Your task to perform on an android device: move a message to another label in the gmail app Image 0: 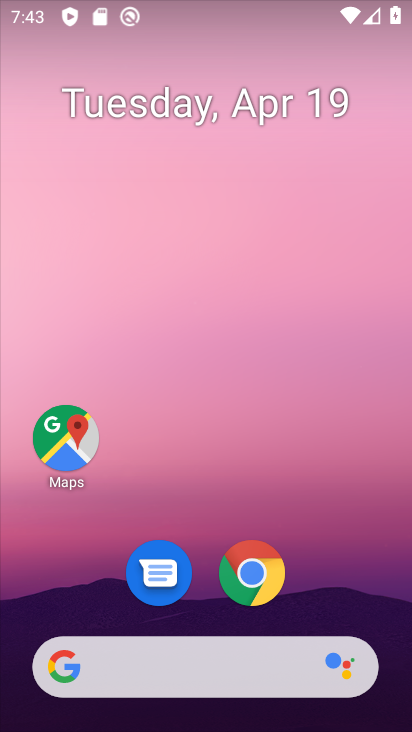
Step 0: click (257, 571)
Your task to perform on an android device: move a message to another label in the gmail app Image 1: 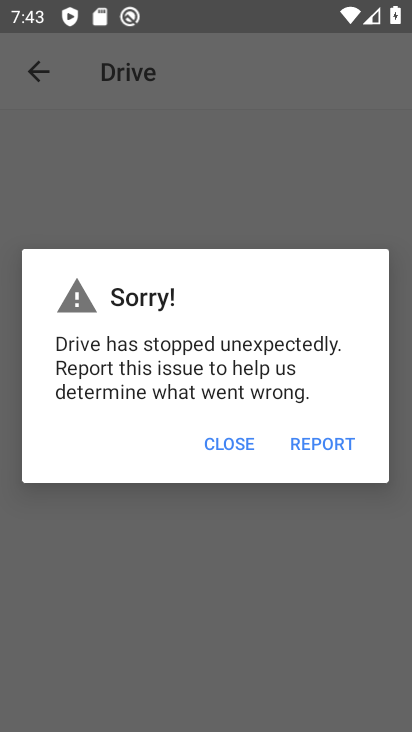
Step 1: press home button
Your task to perform on an android device: move a message to another label in the gmail app Image 2: 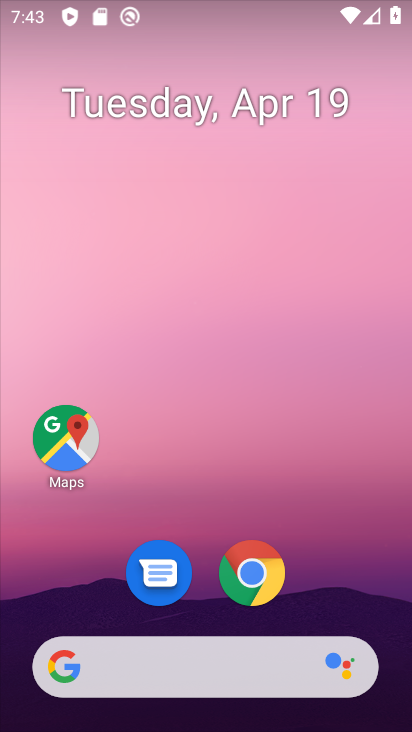
Step 2: drag from (329, 592) to (319, 47)
Your task to perform on an android device: move a message to another label in the gmail app Image 3: 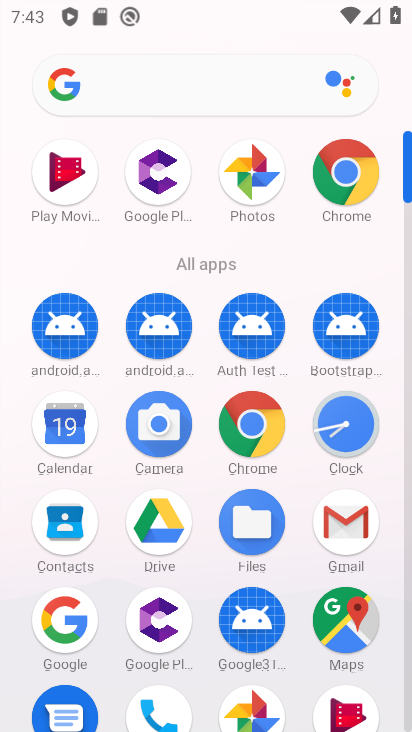
Step 3: click (356, 526)
Your task to perform on an android device: move a message to another label in the gmail app Image 4: 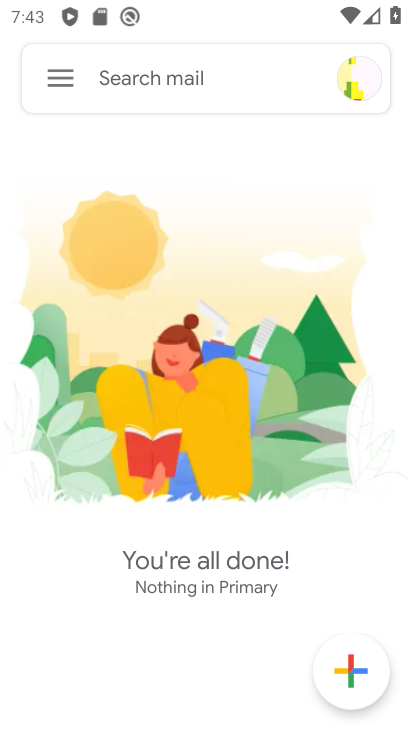
Step 4: click (58, 80)
Your task to perform on an android device: move a message to another label in the gmail app Image 5: 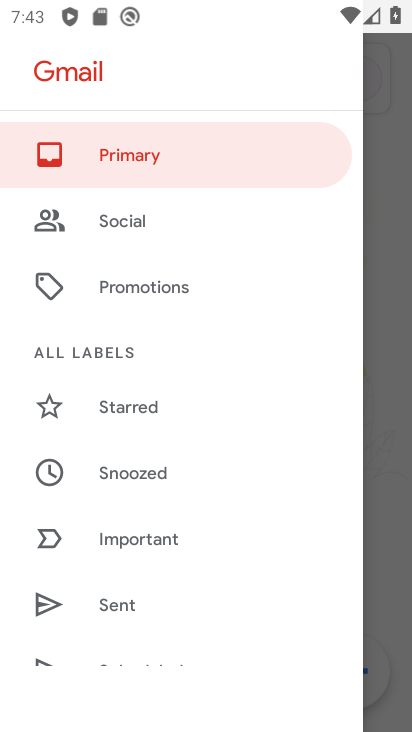
Step 5: drag from (187, 535) to (189, 181)
Your task to perform on an android device: move a message to another label in the gmail app Image 6: 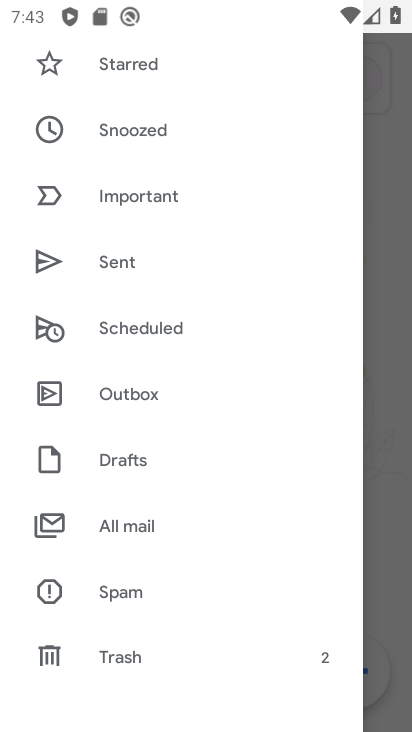
Step 6: click (132, 529)
Your task to perform on an android device: move a message to another label in the gmail app Image 7: 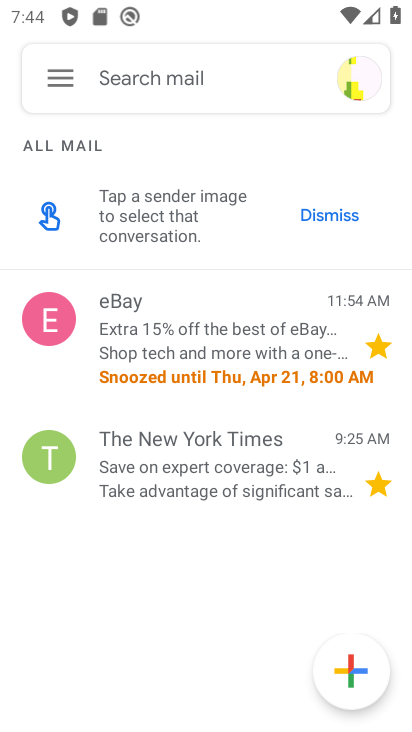
Step 7: click (268, 340)
Your task to perform on an android device: move a message to another label in the gmail app Image 8: 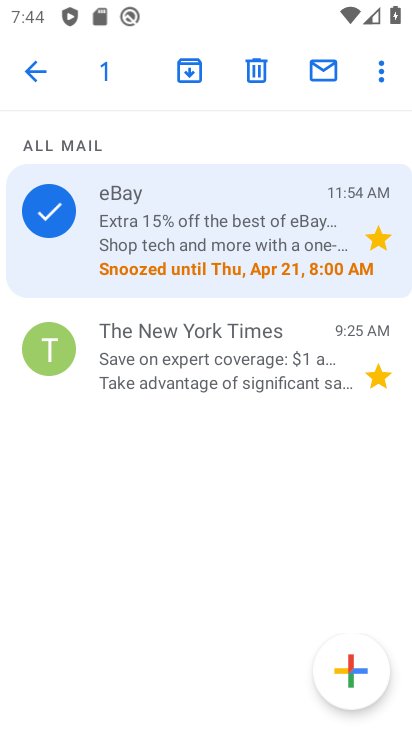
Step 8: click (376, 63)
Your task to perform on an android device: move a message to another label in the gmail app Image 9: 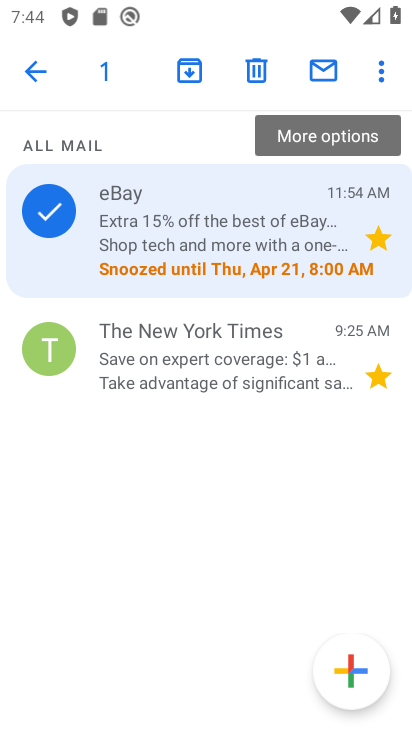
Step 9: click (333, 124)
Your task to perform on an android device: move a message to another label in the gmail app Image 10: 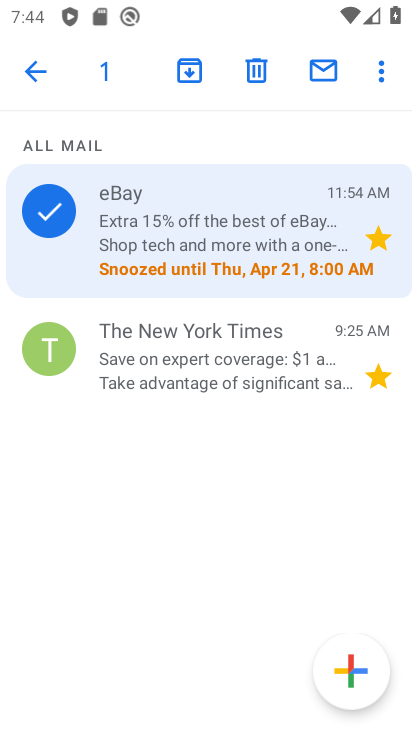
Step 10: click (384, 72)
Your task to perform on an android device: move a message to another label in the gmail app Image 11: 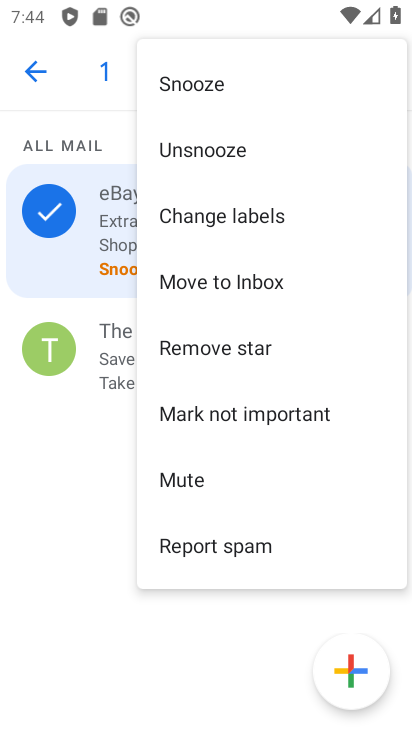
Step 11: click (251, 223)
Your task to perform on an android device: move a message to another label in the gmail app Image 12: 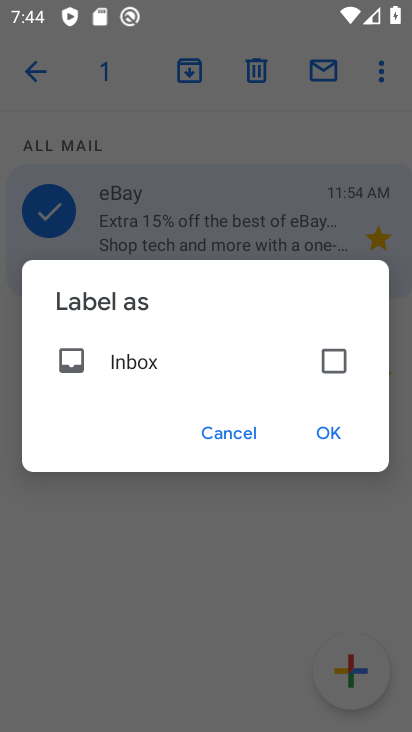
Step 12: click (326, 354)
Your task to perform on an android device: move a message to another label in the gmail app Image 13: 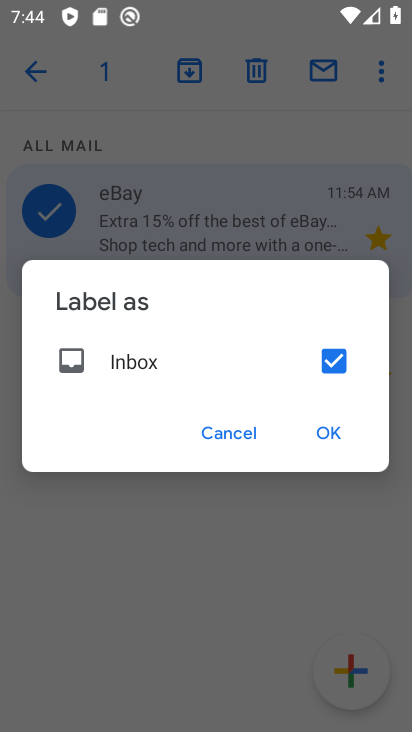
Step 13: click (329, 437)
Your task to perform on an android device: move a message to another label in the gmail app Image 14: 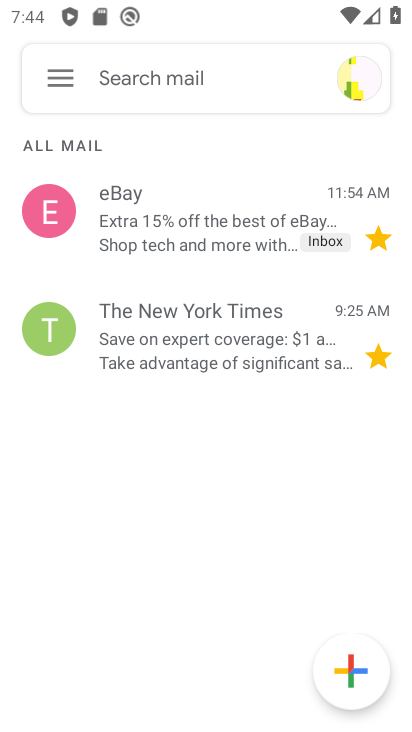
Step 14: task complete